Your task to perform on an android device: See recent photos Image 0: 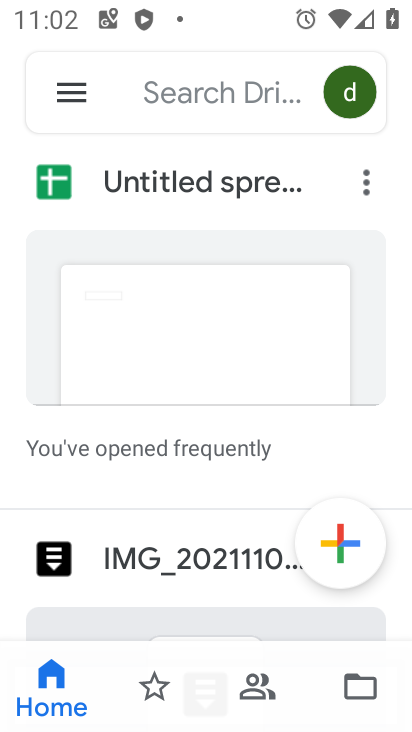
Step 0: press home button
Your task to perform on an android device: See recent photos Image 1: 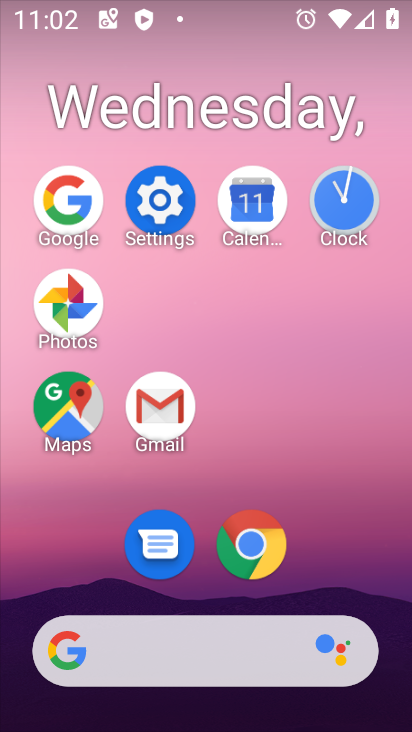
Step 1: click (71, 297)
Your task to perform on an android device: See recent photos Image 2: 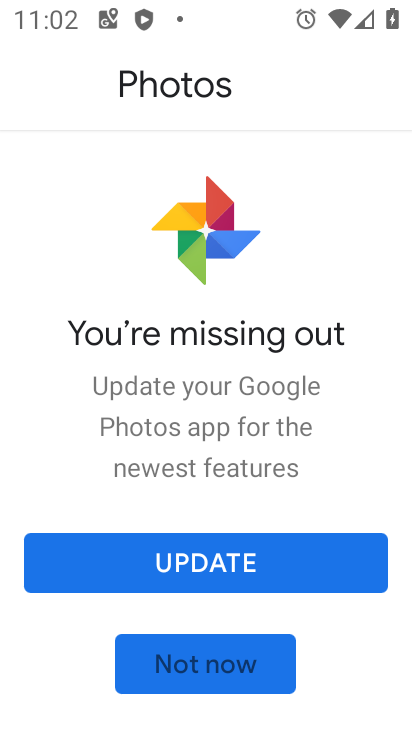
Step 2: click (272, 571)
Your task to perform on an android device: See recent photos Image 3: 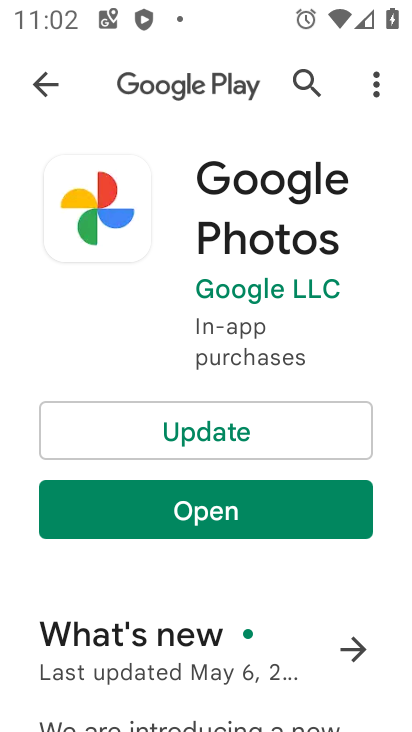
Step 3: click (285, 415)
Your task to perform on an android device: See recent photos Image 4: 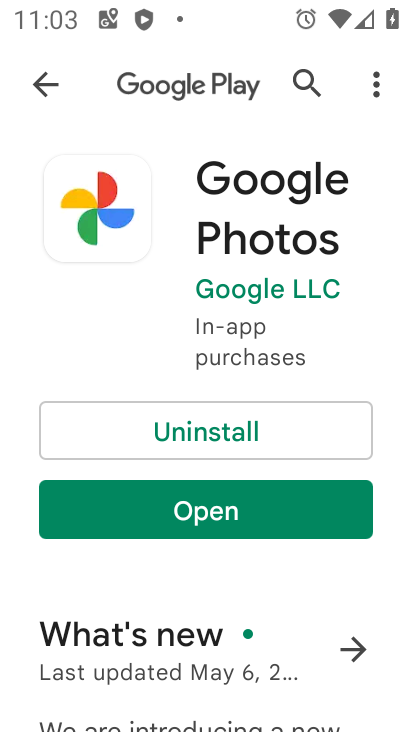
Step 4: click (249, 517)
Your task to perform on an android device: See recent photos Image 5: 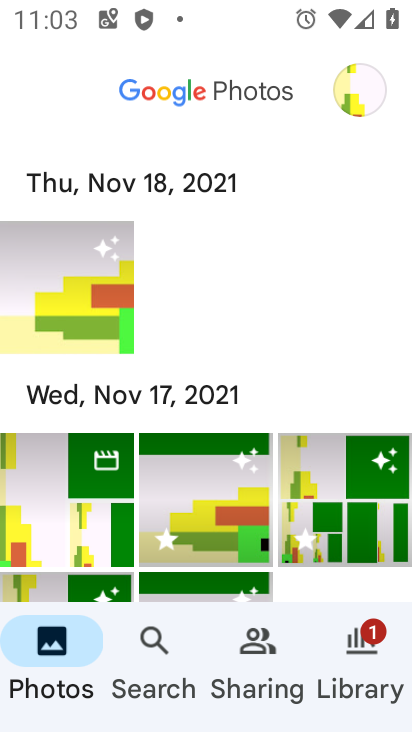
Step 5: click (66, 284)
Your task to perform on an android device: See recent photos Image 6: 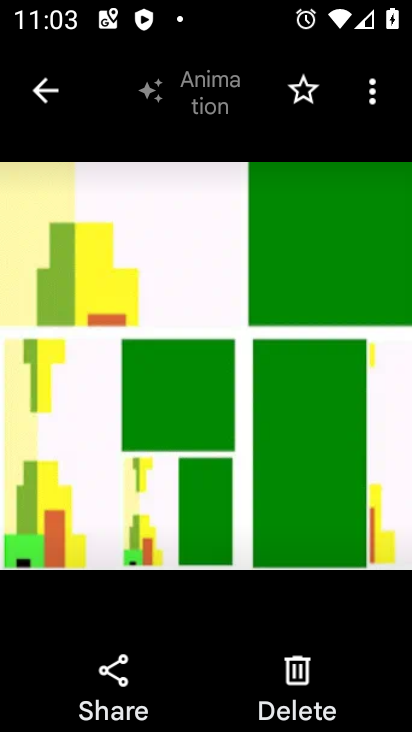
Step 6: task complete